Your task to perform on an android device: open the mobile data screen to see how much data has been used Image 0: 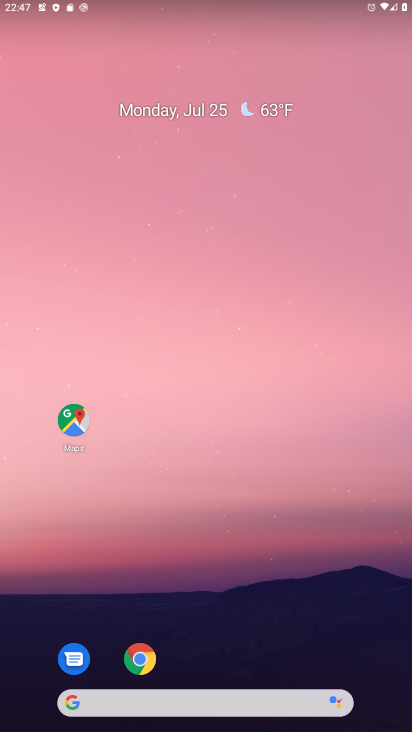
Step 0: drag from (228, 704) to (239, 447)
Your task to perform on an android device: open the mobile data screen to see how much data has been used Image 1: 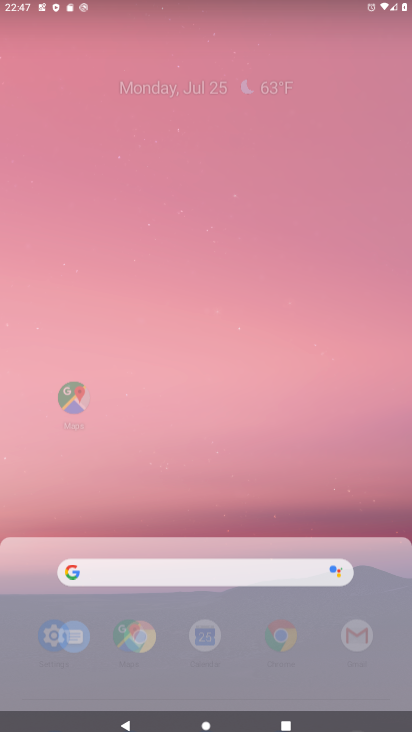
Step 1: drag from (240, 148) to (240, 53)
Your task to perform on an android device: open the mobile data screen to see how much data has been used Image 2: 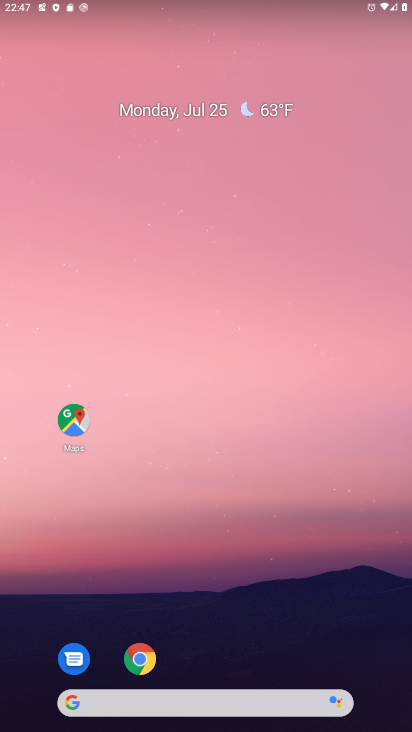
Step 2: drag from (232, 728) to (238, 283)
Your task to perform on an android device: open the mobile data screen to see how much data has been used Image 3: 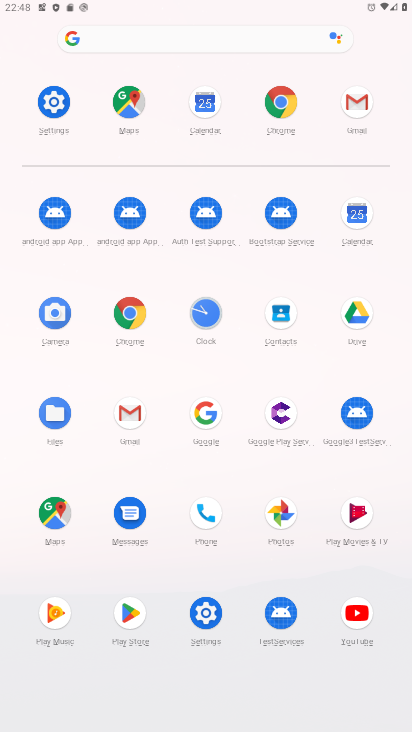
Step 3: click (48, 103)
Your task to perform on an android device: open the mobile data screen to see how much data has been used Image 4: 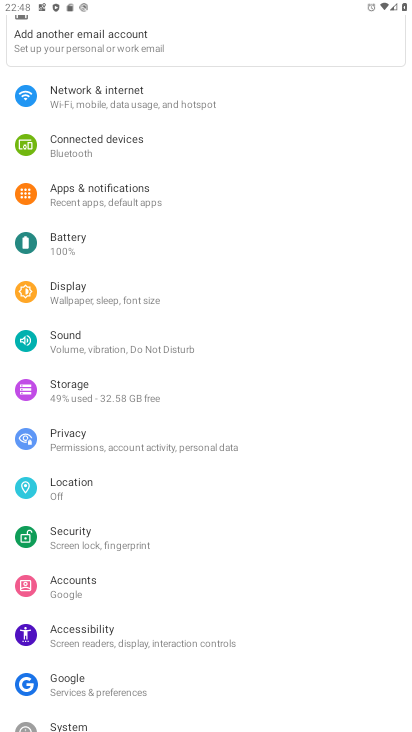
Step 4: click (89, 95)
Your task to perform on an android device: open the mobile data screen to see how much data has been used Image 5: 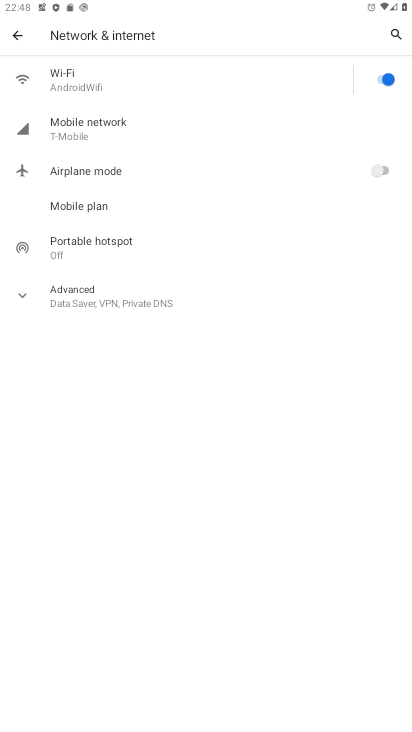
Step 5: click (79, 123)
Your task to perform on an android device: open the mobile data screen to see how much data has been used Image 6: 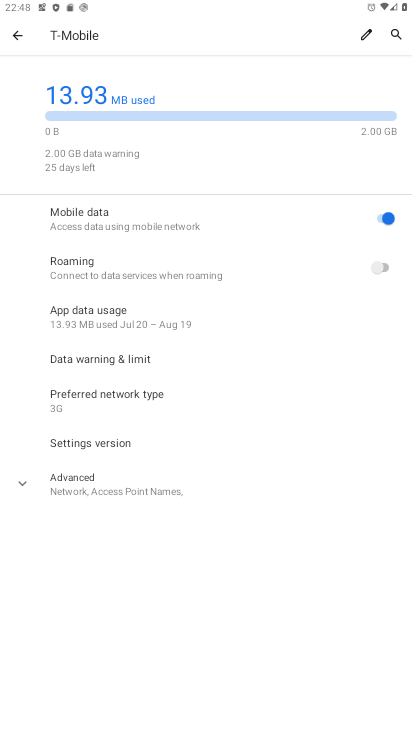
Step 6: task complete